Your task to perform on an android device: open chrome and create a bookmark for the current page Image 0: 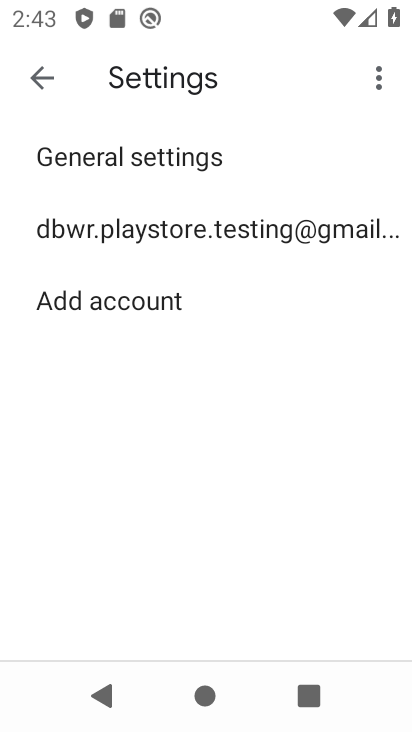
Step 0: press home button
Your task to perform on an android device: open chrome and create a bookmark for the current page Image 1: 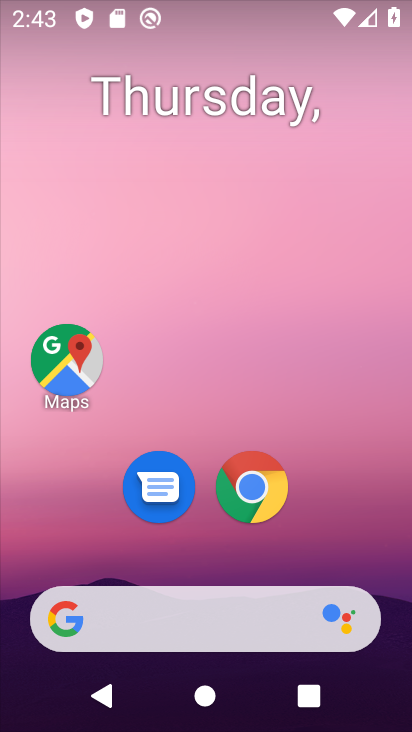
Step 1: click (247, 483)
Your task to perform on an android device: open chrome and create a bookmark for the current page Image 2: 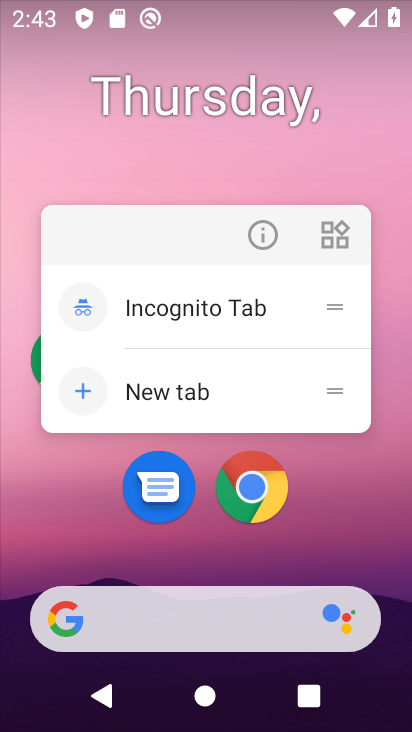
Step 2: click (247, 483)
Your task to perform on an android device: open chrome and create a bookmark for the current page Image 3: 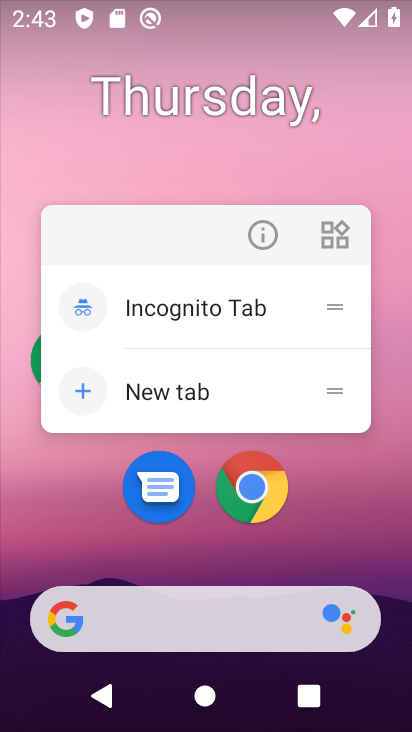
Step 3: click (247, 483)
Your task to perform on an android device: open chrome and create a bookmark for the current page Image 4: 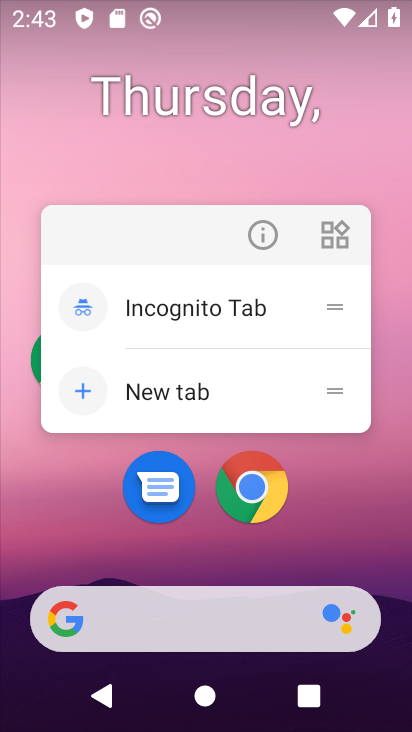
Step 4: click (247, 482)
Your task to perform on an android device: open chrome and create a bookmark for the current page Image 5: 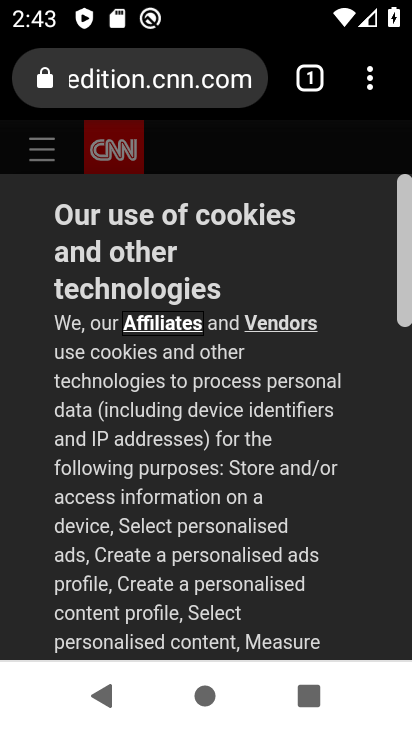
Step 5: task complete